Your task to perform on an android device: turn on bluetooth scan Image 0: 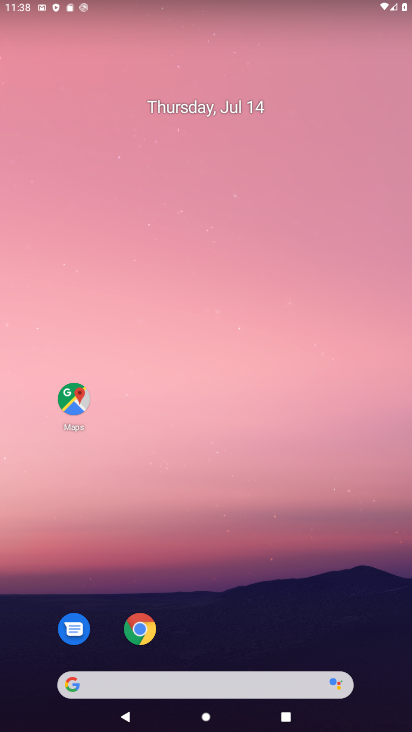
Step 0: drag from (202, 660) to (277, 144)
Your task to perform on an android device: turn on bluetooth scan Image 1: 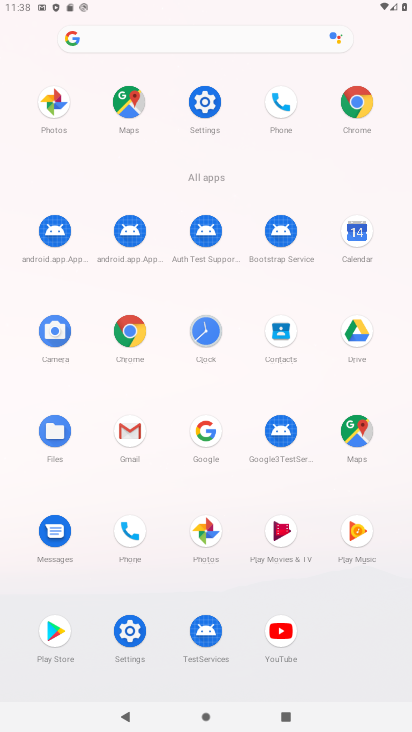
Step 1: click (137, 620)
Your task to perform on an android device: turn on bluetooth scan Image 2: 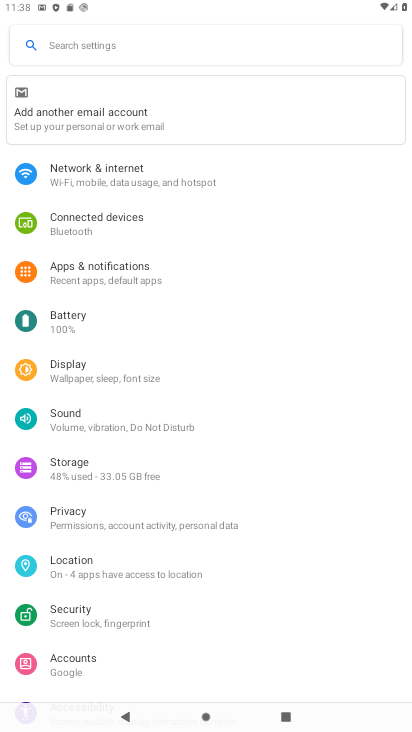
Step 2: click (150, 224)
Your task to perform on an android device: turn on bluetooth scan Image 3: 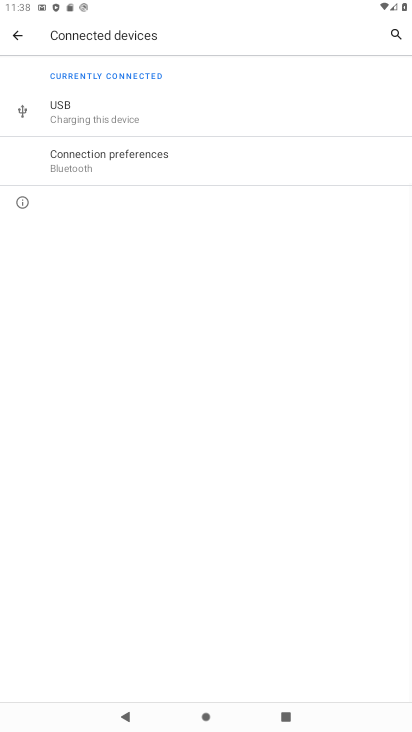
Step 3: click (128, 165)
Your task to perform on an android device: turn on bluetooth scan Image 4: 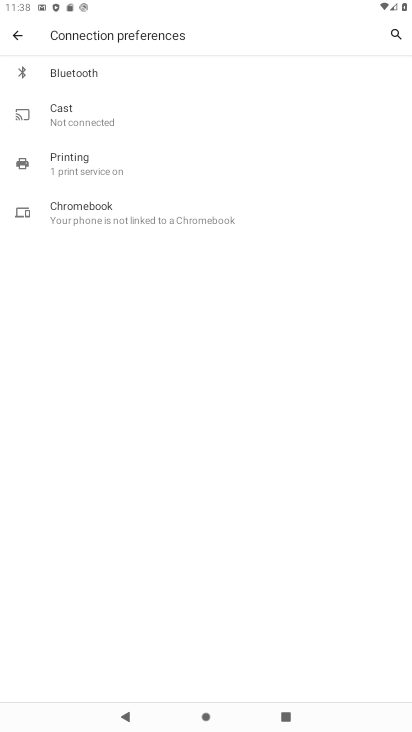
Step 4: click (116, 80)
Your task to perform on an android device: turn on bluetooth scan Image 5: 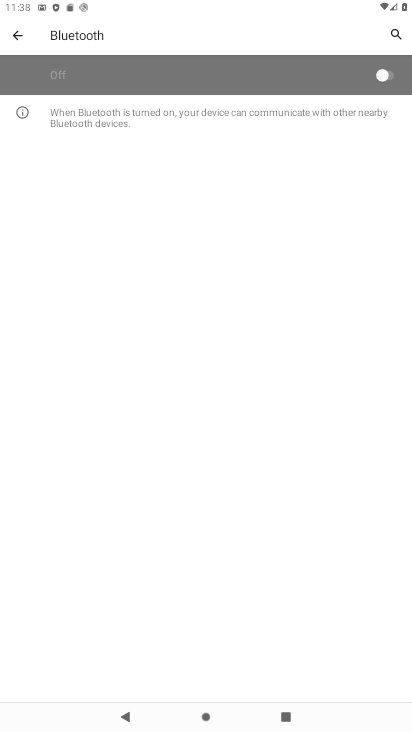
Step 5: click (395, 79)
Your task to perform on an android device: turn on bluetooth scan Image 6: 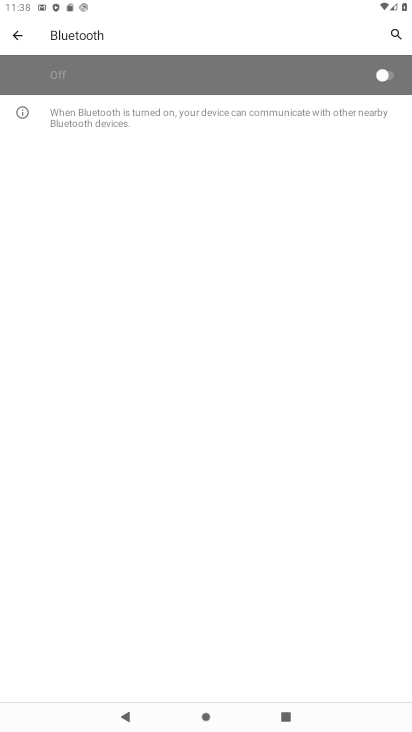
Step 6: task complete